Your task to perform on an android device: set an alarm Image 0: 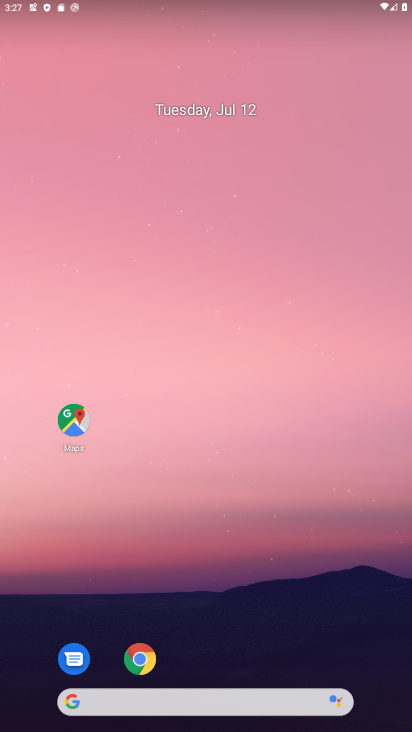
Step 0: drag from (182, 381) to (165, 18)
Your task to perform on an android device: set an alarm Image 1: 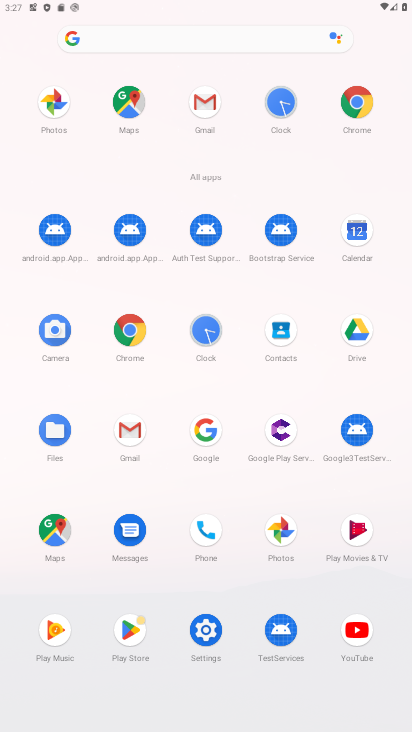
Step 1: click (275, 116)
Your task to perform on an android device: set an alarm Image 2: 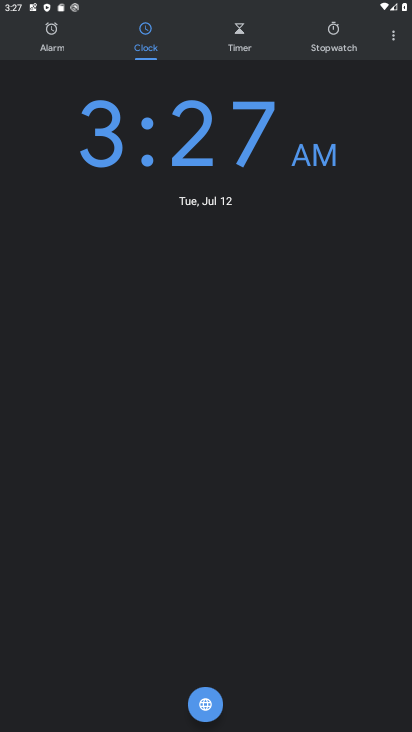
Step 2: click (62, 44)
Your task to perform on an android device: set an alarm Image 3: 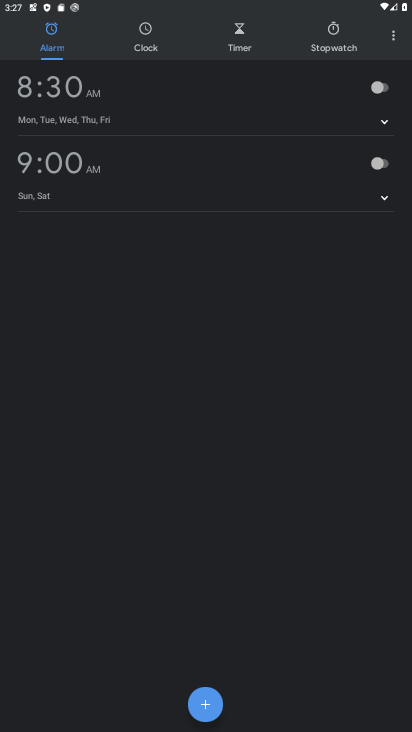
Step 3: click (383, 96)
Your task to perform on an android device: set an alarm Image 4: 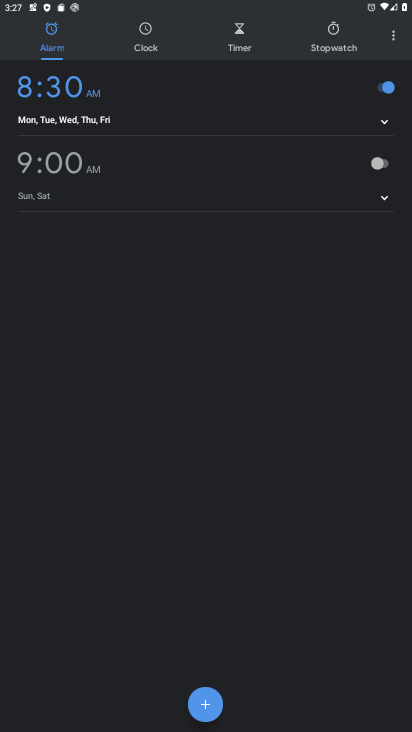
Step 4: task complete